Your task to perform on an android device: open app "Gmail" (install if not already installed) Image 0: 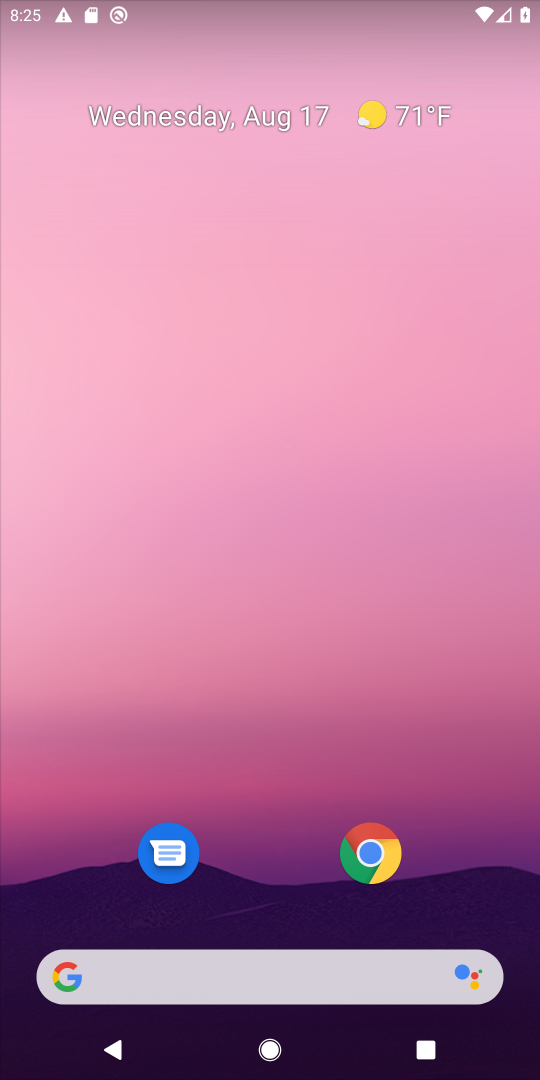
Step 0: drag from (286, 708) to (304, 213)
Your task to perform on an android device: open app "Gmail" (install if not already installed) Image 1: 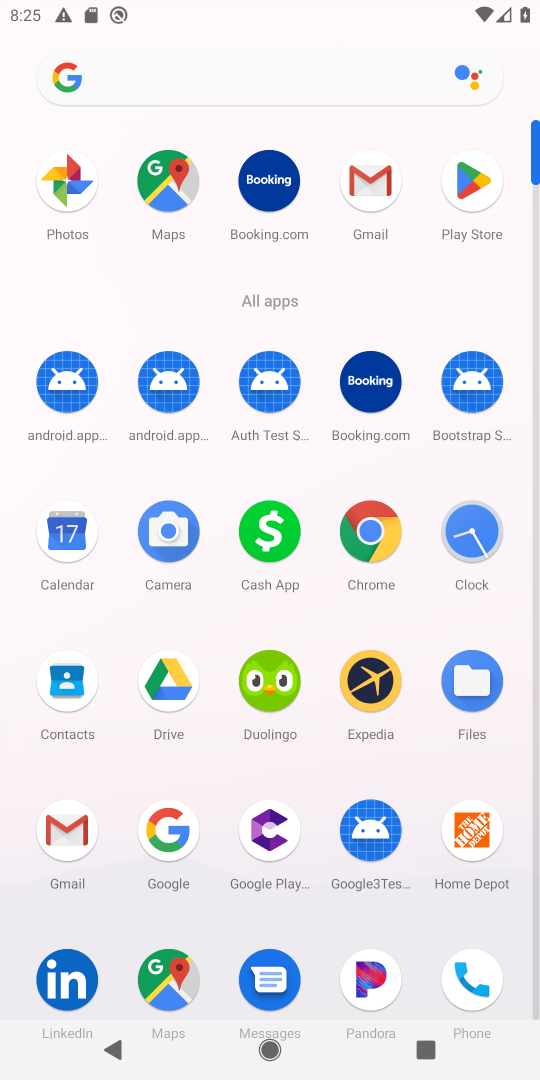
Step 1: click (469, 174)
Your task to perform on an android device: open app "Gmail" (install if not already installed) Image 2: 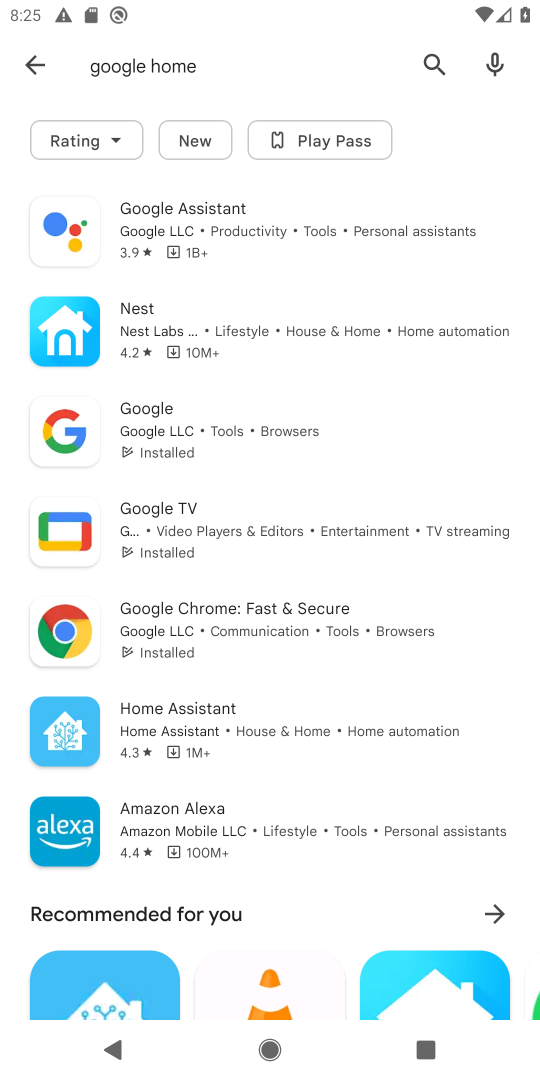
Step 2: click (428, 58)
Your task to perform on an android device: open app "Gmail" (install if not already installed) Image 3: 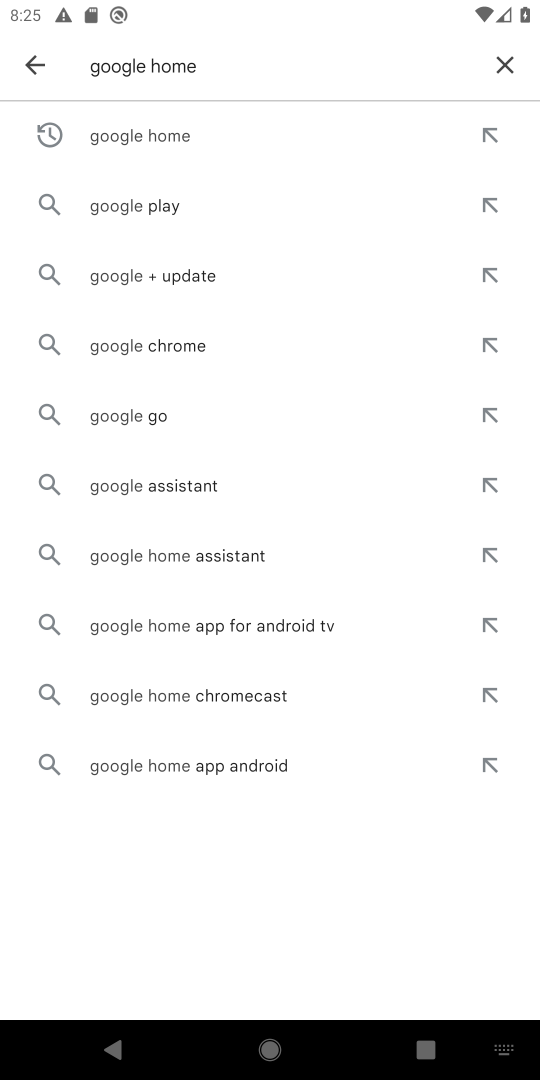
Step 3: click (508, 55)
Your task to perform on an android device: open app "Gmail" (install if not already installed) Image 4: 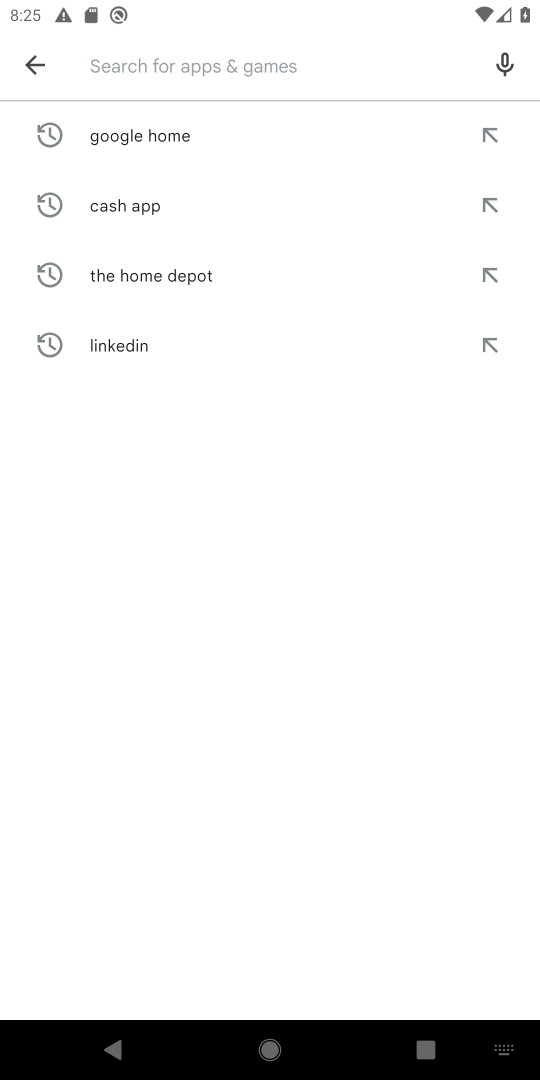
Step 4: type "Gmail"
Your task to perform on an android device: open app "Gmail" (install if not already installed) Image 5: 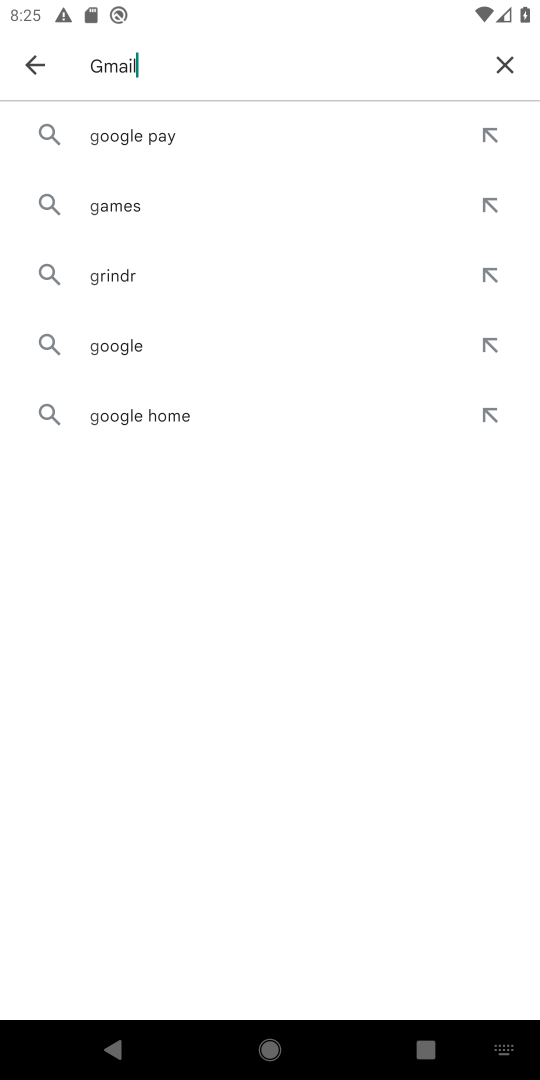
Step 5: type ""
Your task to perform on an android device: open app "Gmail" (install if not already installed) Image 6: 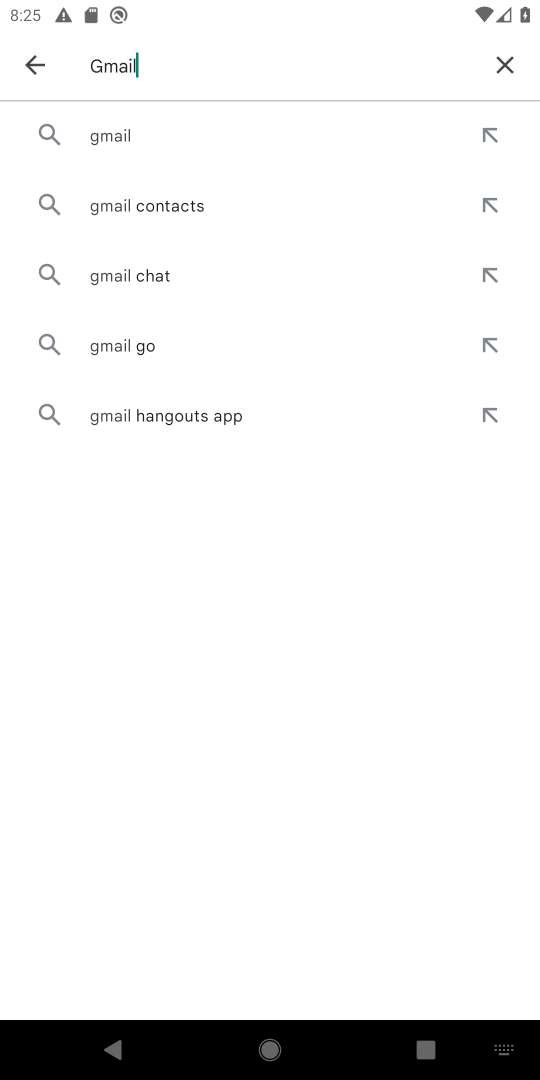
Step 6: click (169, 128)
Your task to perform on an android device: open app "Gmail" (install if not already installed) Image 7: 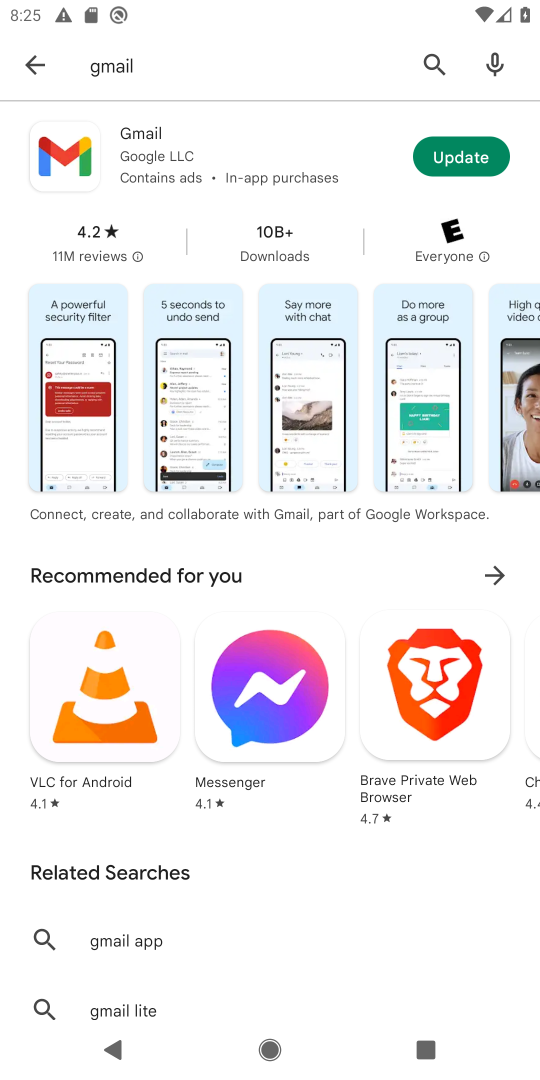
Step 7: click (343, 153)
Your task to perform on an android device: open app "Gmail" (install if not already installed) Image 8: 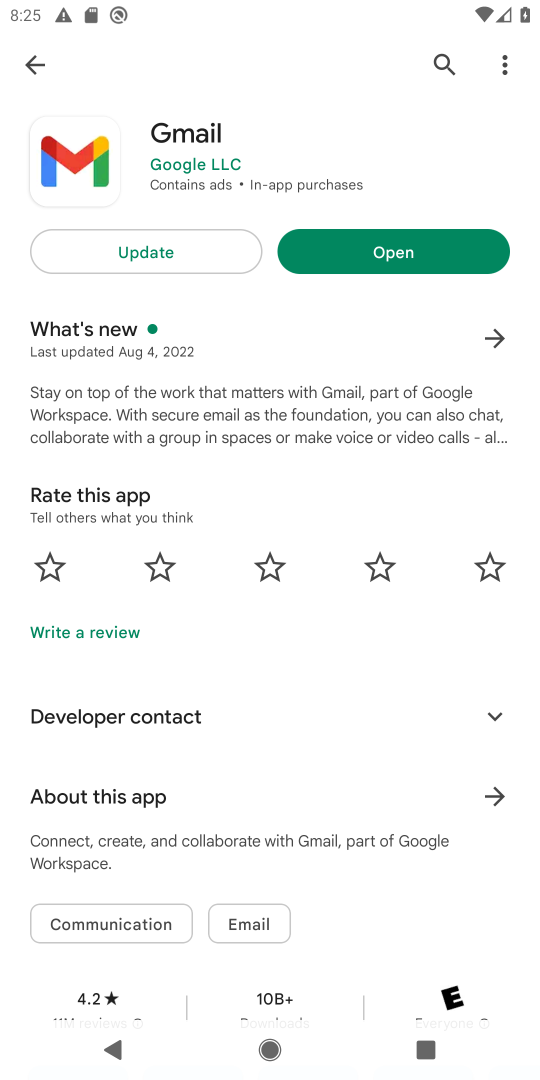
Step 8: click (439, 246)
Your task to perform on an android device: open app "Gmail" (install if not already installed) Image 9: 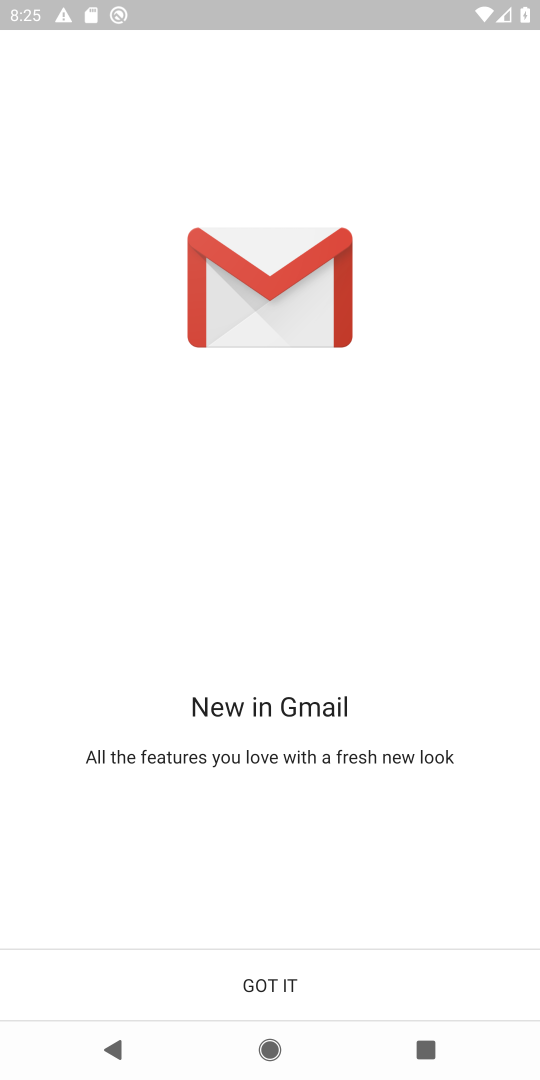
Step 9: click (416, 972)
Your task to perform on an android device: open app "Gmail" (install if not already installed) Image 10: 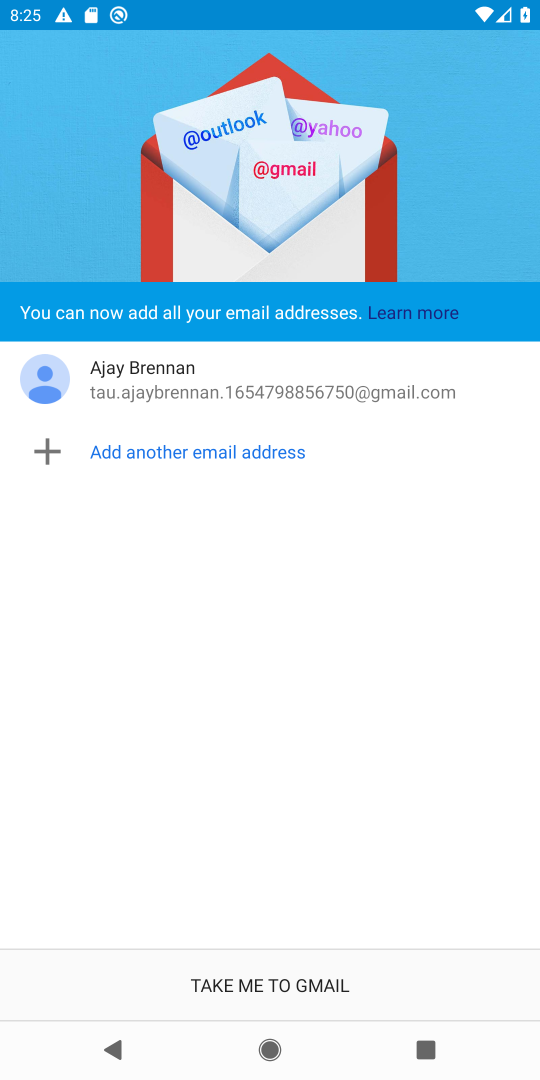
Step 10: click (393, 987)
Your task to perform on an android device: open app "Gmail" (install if not already installed) Image 11: 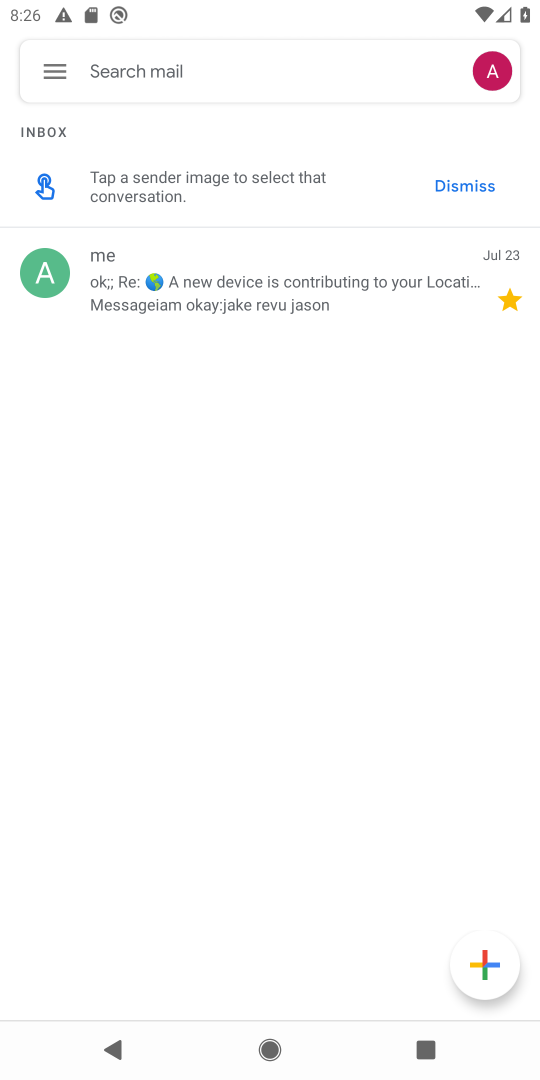
Step 11: task complete